Your task to perform on an android device: turn off notifications in google photos Image 0: 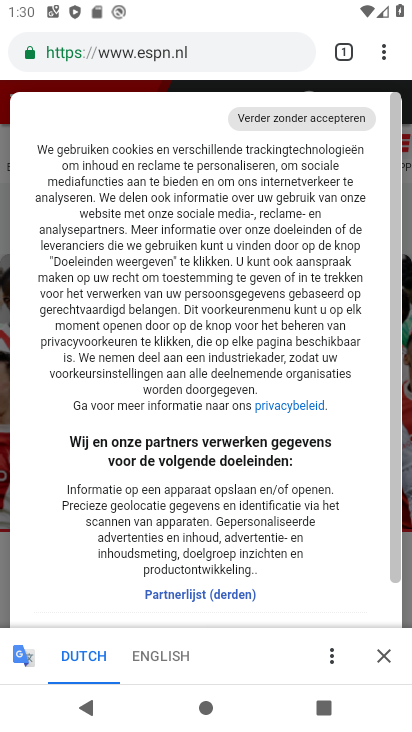
Step 0: press home button
Your task to perform on an android device: turn off notifications in google photos Image 1: 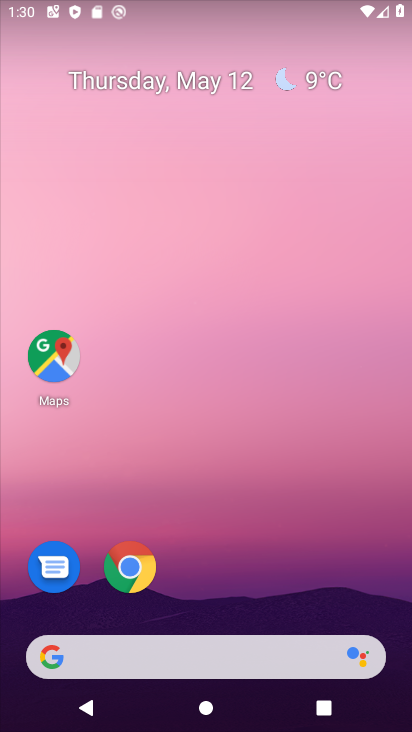
Step 1: drag from (298, 591) to (295, 182)
Your task to perform on an android device: turn off notifications in google photos Image 2: 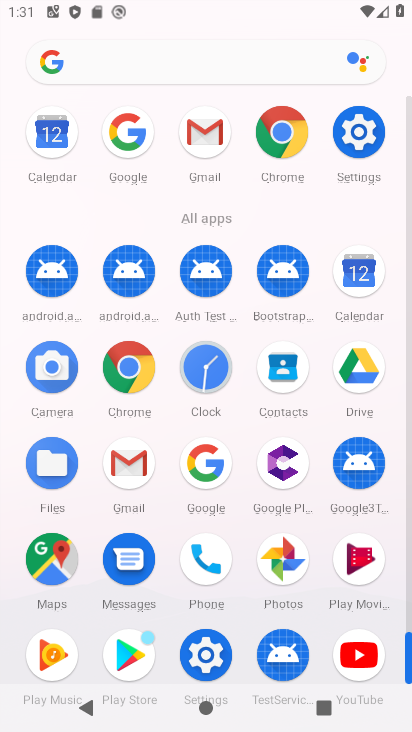
Step 2: click (281, 607)
Your task to perform on an android device: turn off notifications in google photos Image 3: 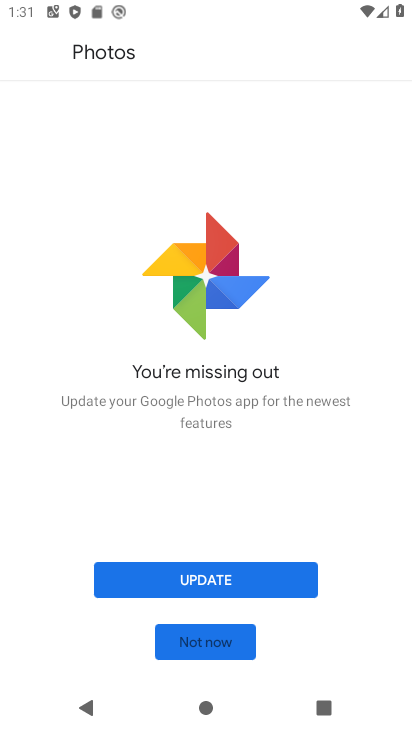
Step 3: click (298, 407)
Your task to perform on an android device: turn off notifications in google photos Image 4: 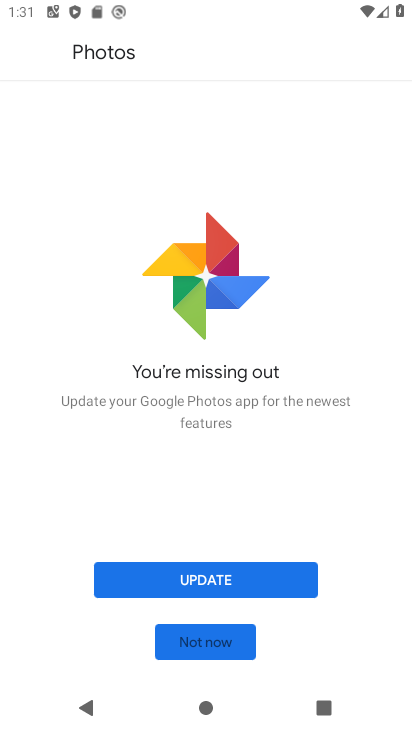
Step 4: click (199, 648)
Your task to perform on an android device: turn off notifications in google photos Image 5: 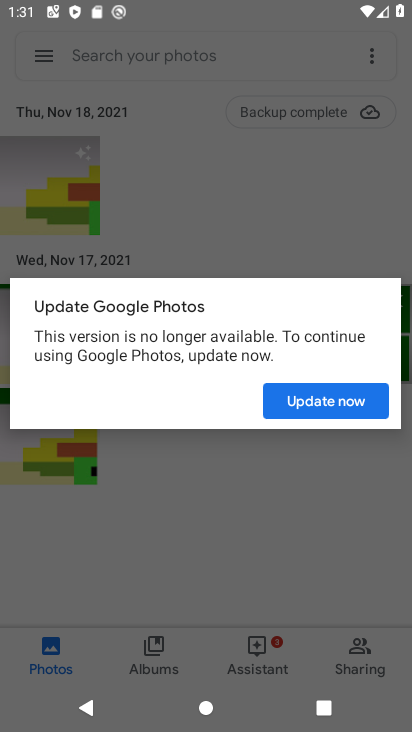
Step 5: click (301, 391)
Your task to perform on an android device: turn off notifications in google photos Image 6: 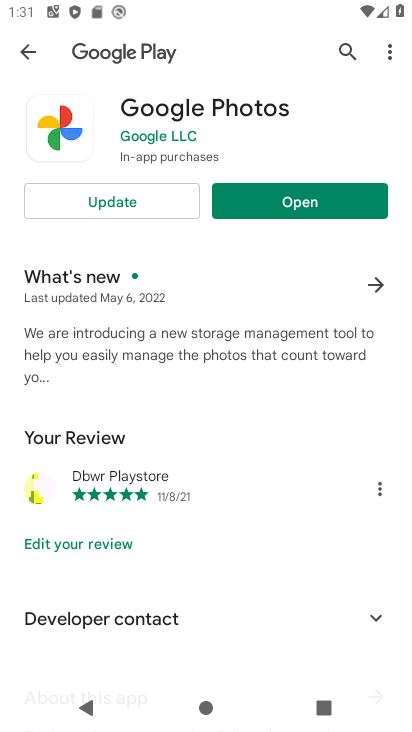
Step 6: click (281, 202)
Your task to perform on an android device: turn off notifications in google photos Image 7: 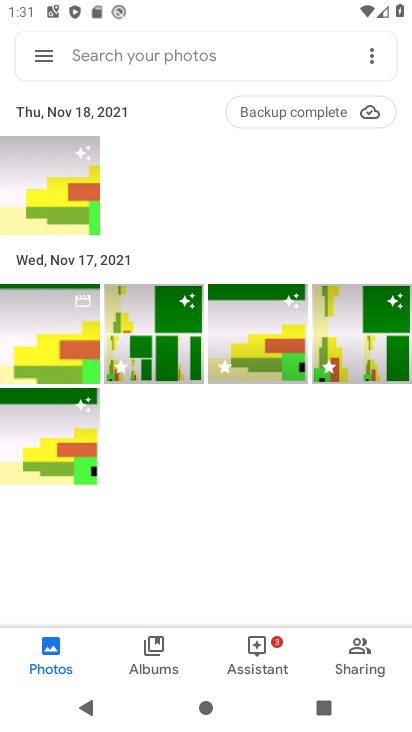
Step 7: click (42, 54)
Your task to perform on an android device: turn off notifications in google photos Image 8: 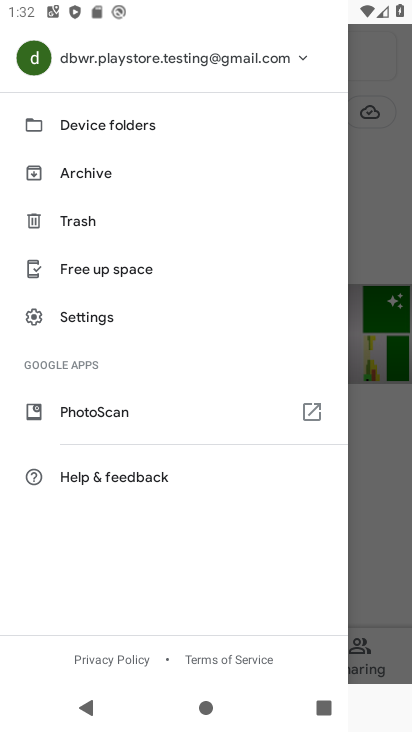
Step 8: click (112, 322)
Your task to perform on an android device: turn off notifications in google photos Image 9: 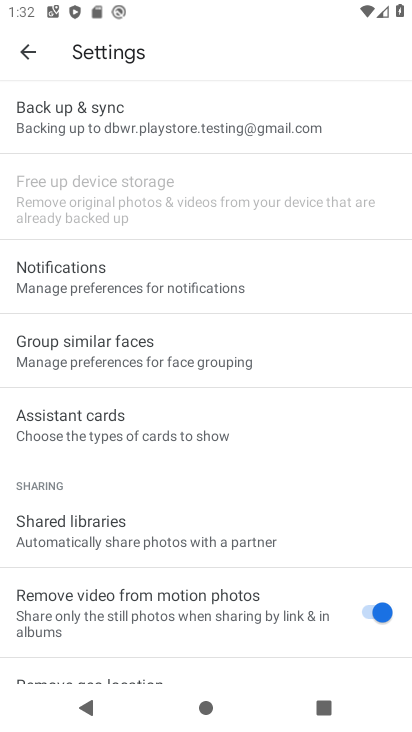
Step 9: click (124, 285)
Your task to perform on an android device: turn off notifications in google photos Image 10: 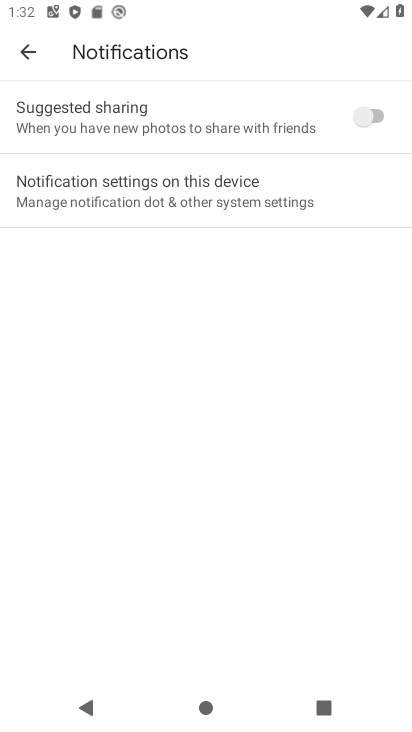
Step 10: click (260, 199)
Your task to perform on an android device: turn off notifications in google photos Image 11: 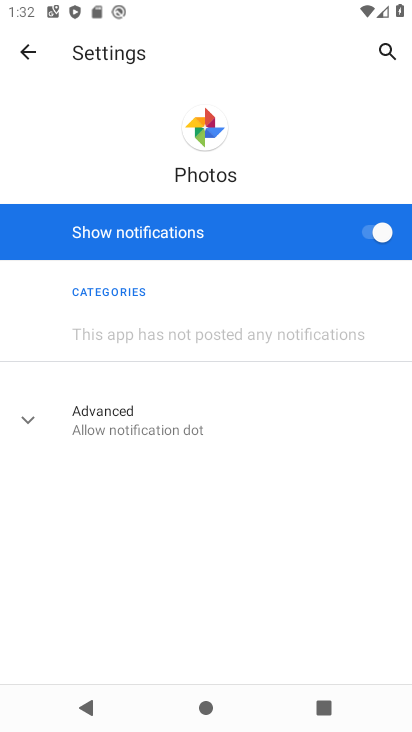
Step 11: click (367, 235)
Your task to perform on an android device: turn off notifications in google photos Image 12: 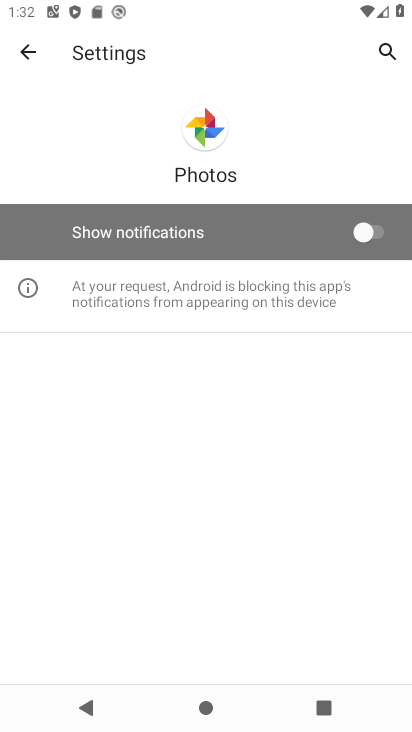
Step 12: task complete